Your task to perform on an android device: choose inbox layout in the gmail app Image 0: 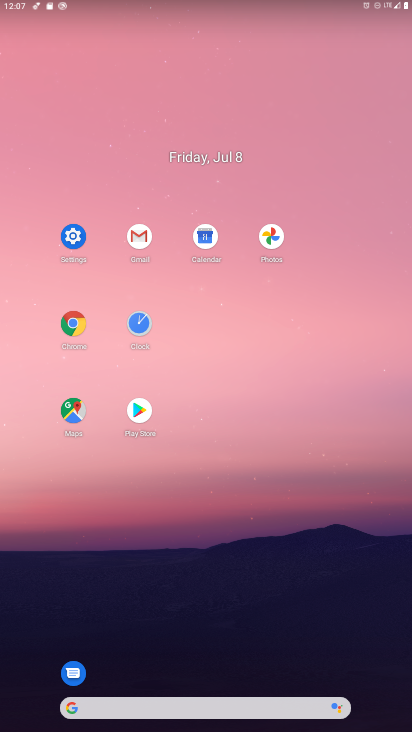
Step 0: click (150, 239)
Your task to perform on an android device: choose inbox layout in the gmail app Image 1: 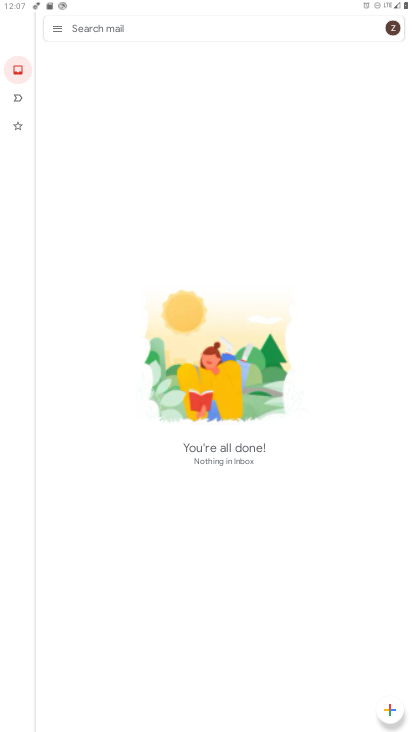
Step 1: click (46, 33)
Your task to perform on an android device: choose inbox layout in the gmail app Image 2: 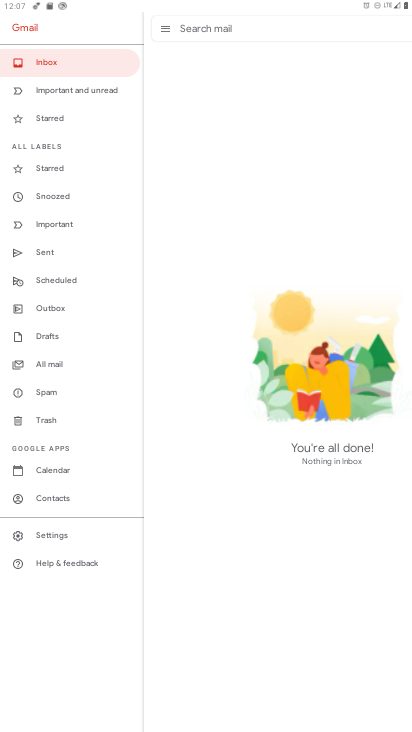
Step 2: click (54, 536)
Your task to perform on an android device: choose inbox layout in the gmail app Image 3: 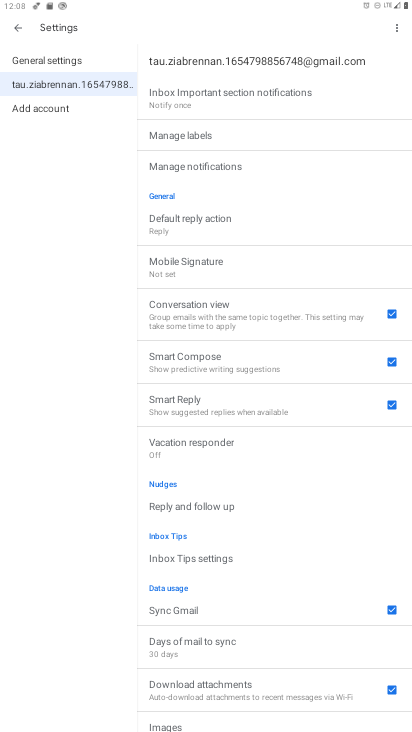
Step 3: drag from (255, 494) to (314, 288)
Your task to perform on an android device: choose inbox layout in the gmail app Image 4: 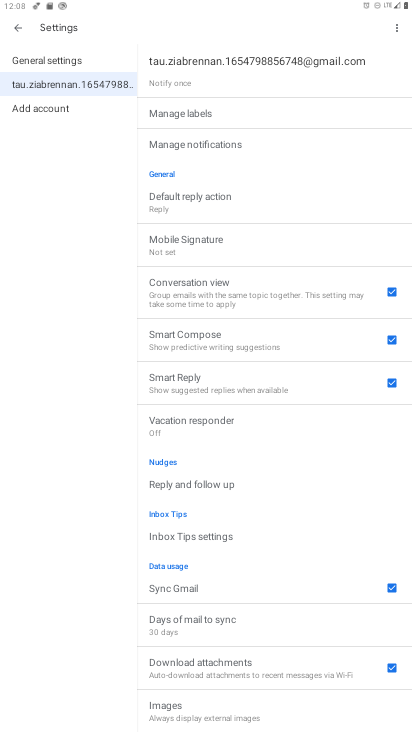
Step 4: drag from (265, 182) to (227, 475)
Your task to perform on an android device: choose inbox layout in the gmail app Image 5: 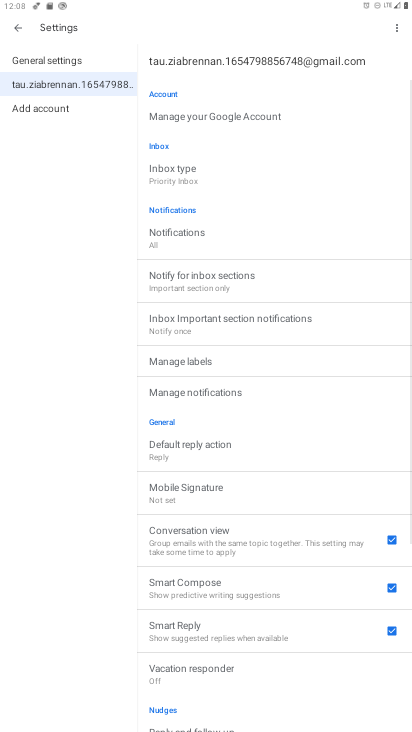
Step 5: click (245, 179)
Your task to perform on an android device: choose inbox layout in the gmail app Image 6: 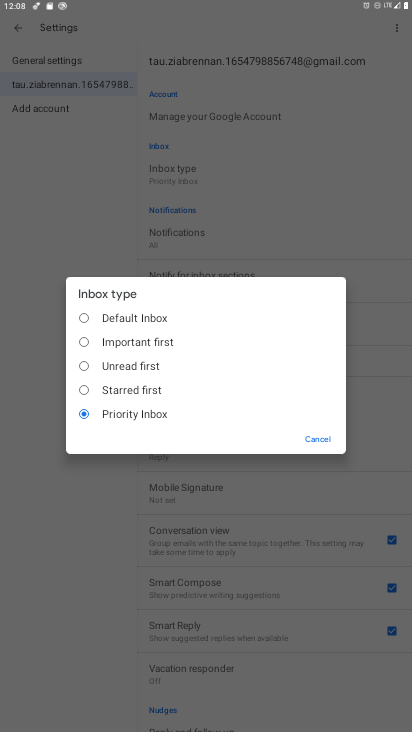
Step 6: task complete